Your task to perform on an android device: check battery use Image 0: 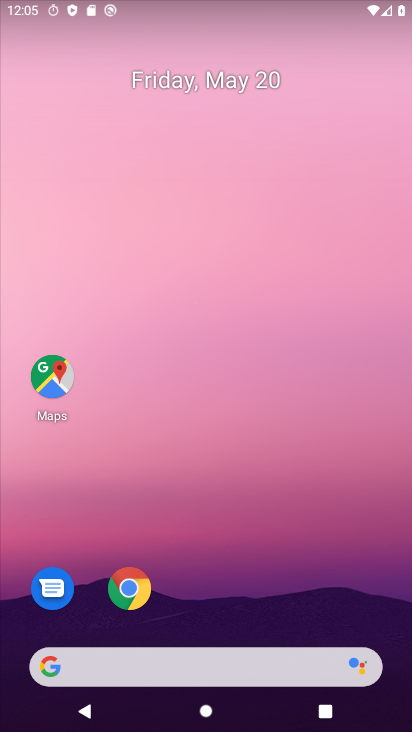
Step 0: drag from (306, 628) to (287, 132)
Your task to perform on an android device: check battery use Image 1: 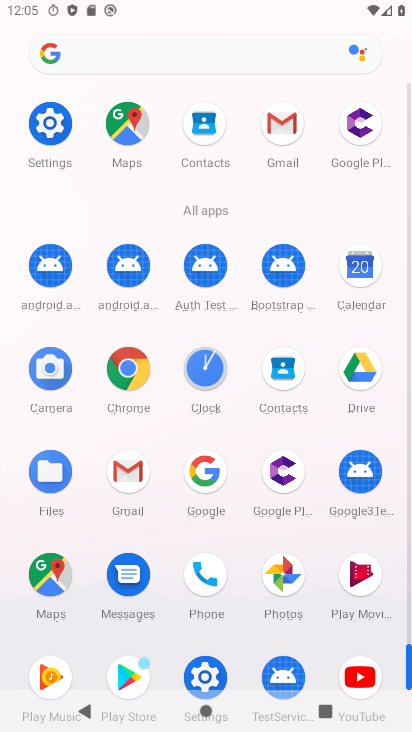
Step 1: click (66, 118)
Your task to perform on an android device: check battery use Image 2: 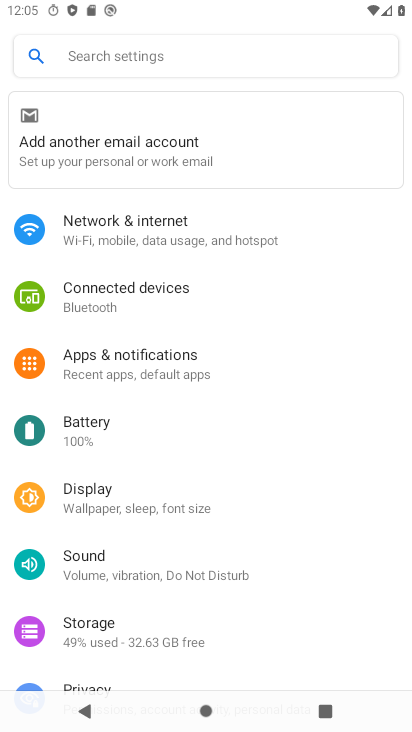
Step 2: click (195, 450)
Your task to perform on an android device: check battery use Image 3: 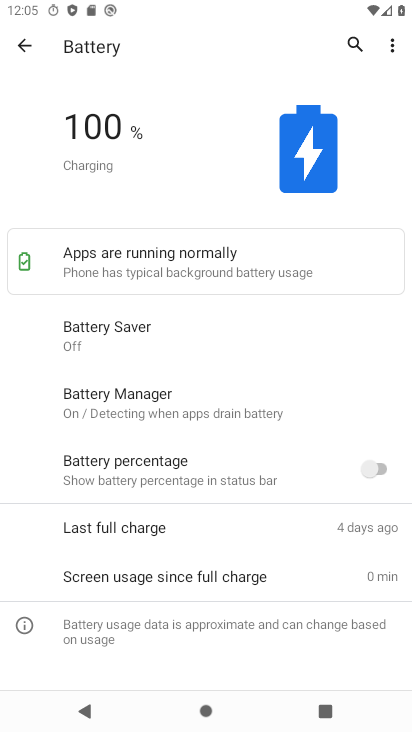
Step 3: click (392, 62)
Your task to perform on an android device: check battery use Image 4: 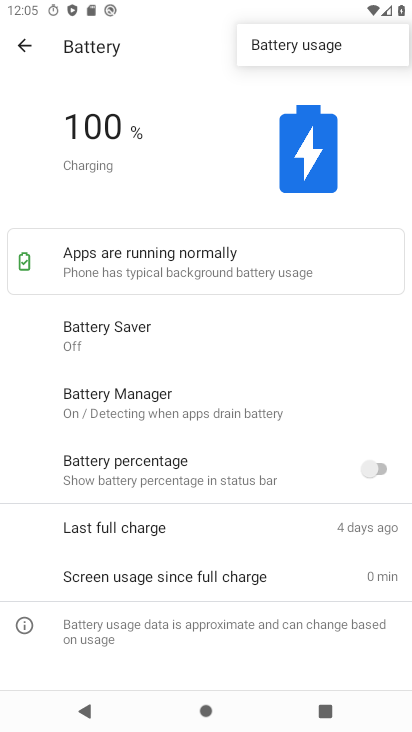
Step 4: click (347, 53)
Your task to perform on an android device: check battery use Image 5: 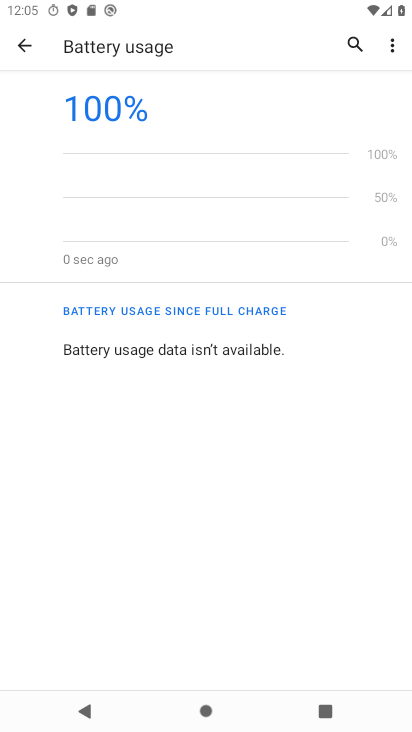
Step 5: task complete